Your task to perform on an android device: delete browsing data in the chrome app Image 0: 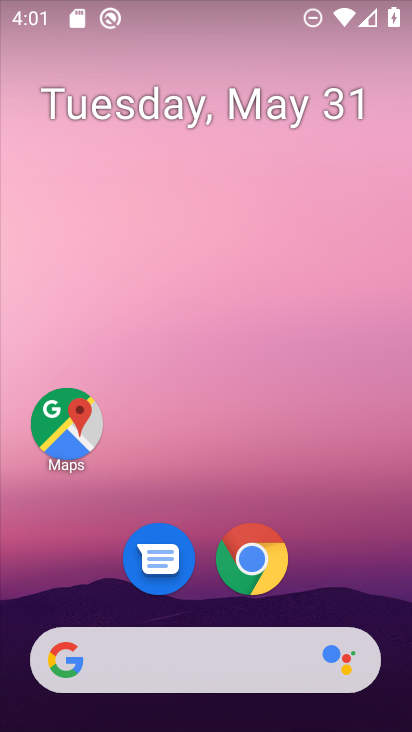
Step 0: click (260, 556)
Your task to perform on an android device: delete browsing data in the chrome app Image 1: 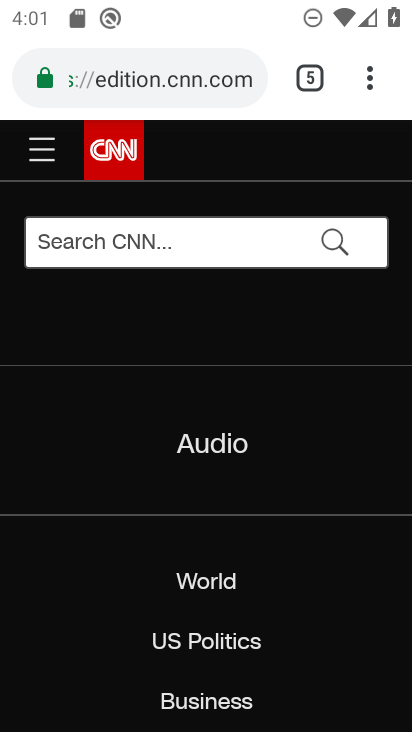
Step 1: click (368, 86)
Your task to perform on an android device: delete browsing data in the chrome app Image 2: 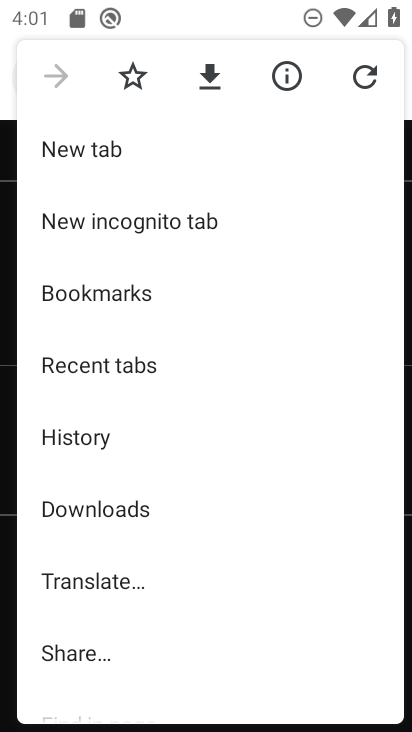
Step 2: click (80, 425)
Your task to perform on an android device: delete browsing data in the chrome app Image 3: 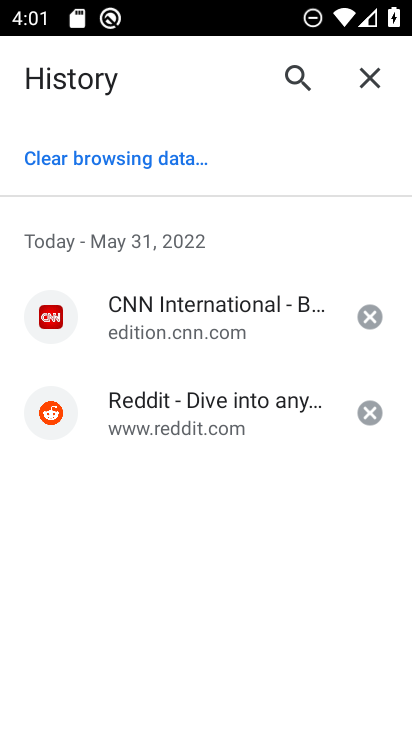
Step 3: click (120, 155)
Your task to perform on an android device: delete browsing data in the chrome app Image 4: 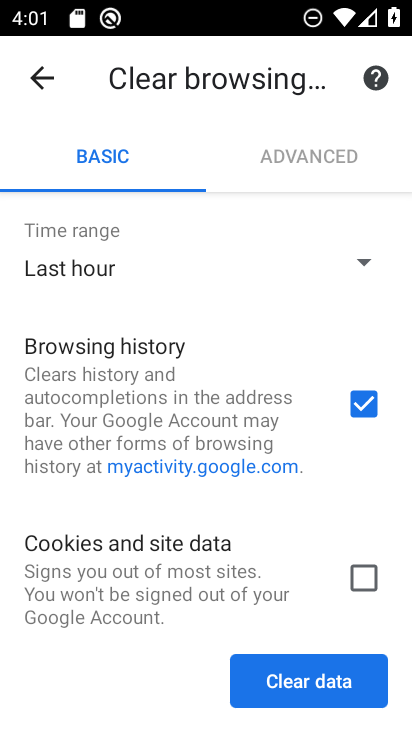
Step 4: click (261, 682)
Your task to perform on an android device: delete browsing data in the chrome app Image 5: 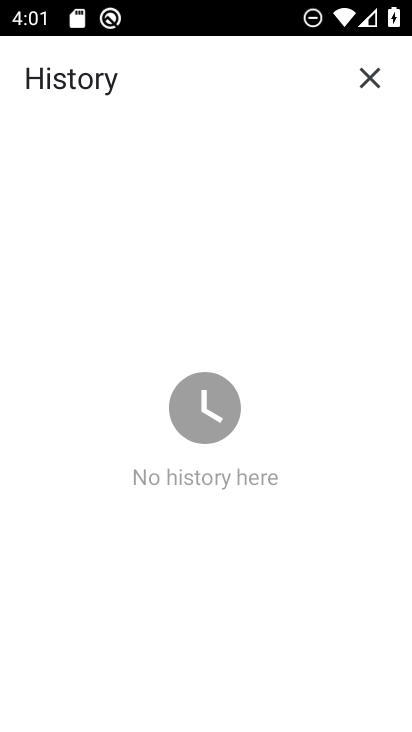
Step 5: task complete